Your task to perform on an android device: move a message to another label in the gmail app Image 0: 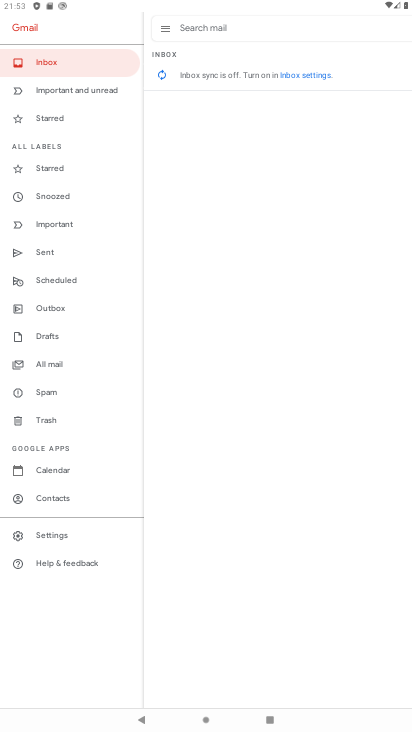
Step 0: press home button
Your task to perform on an android device: move a message to another label in the gmail app Image 1: 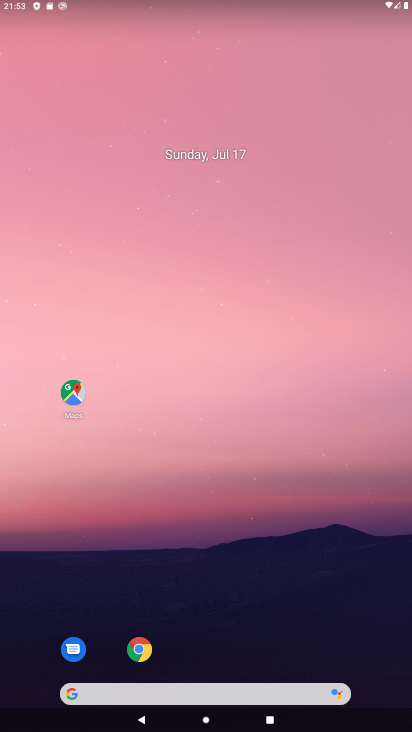
Step 1: drag from (21, 706) to (167, 325)
Your task to perform on an android device: move a message to another label in the gmail app Image 2: 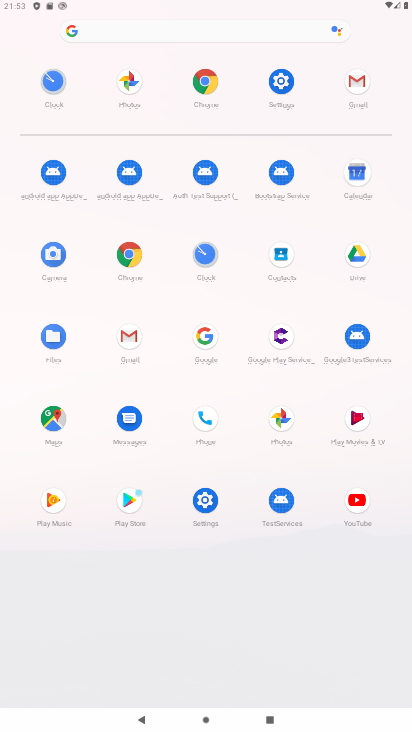
Step 2: click (136, 347)
Your task to perform on an android device: move a message to another label in the gmail app Image 3: 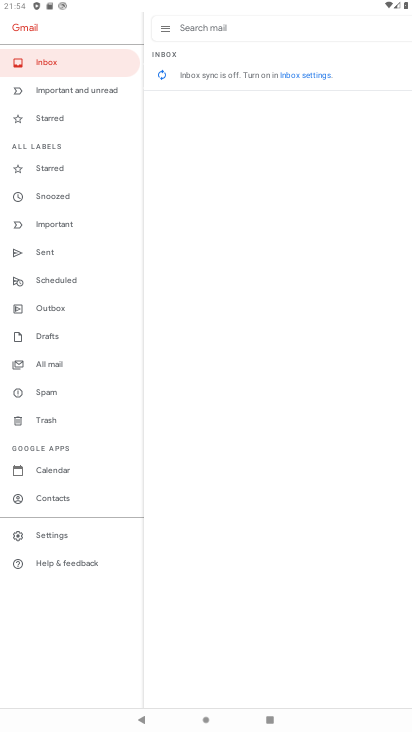
Step 3: task complete